Your task to perform on an android device: turn off airplane mode Image 0: 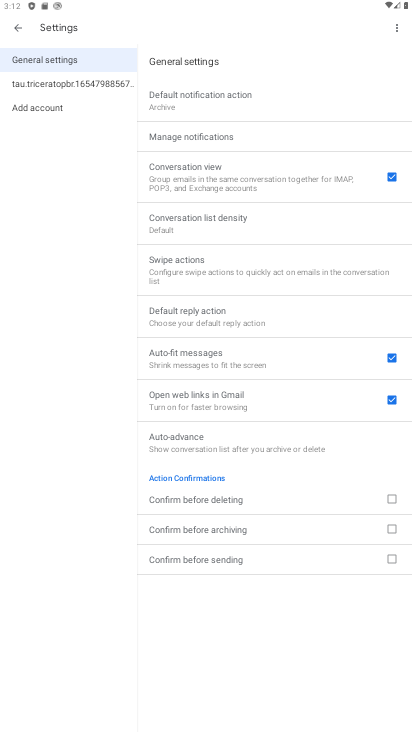
Step 0: press home button
Your task to perform on an android device: turn off airplane mode Image 1: 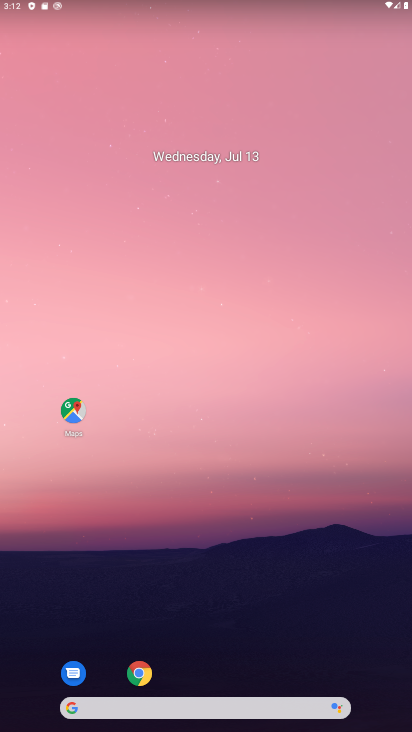
Step 1: task complete